Your task to perform on an android device: Search for the most popular coffee table on Crate & Barrel Image 0: 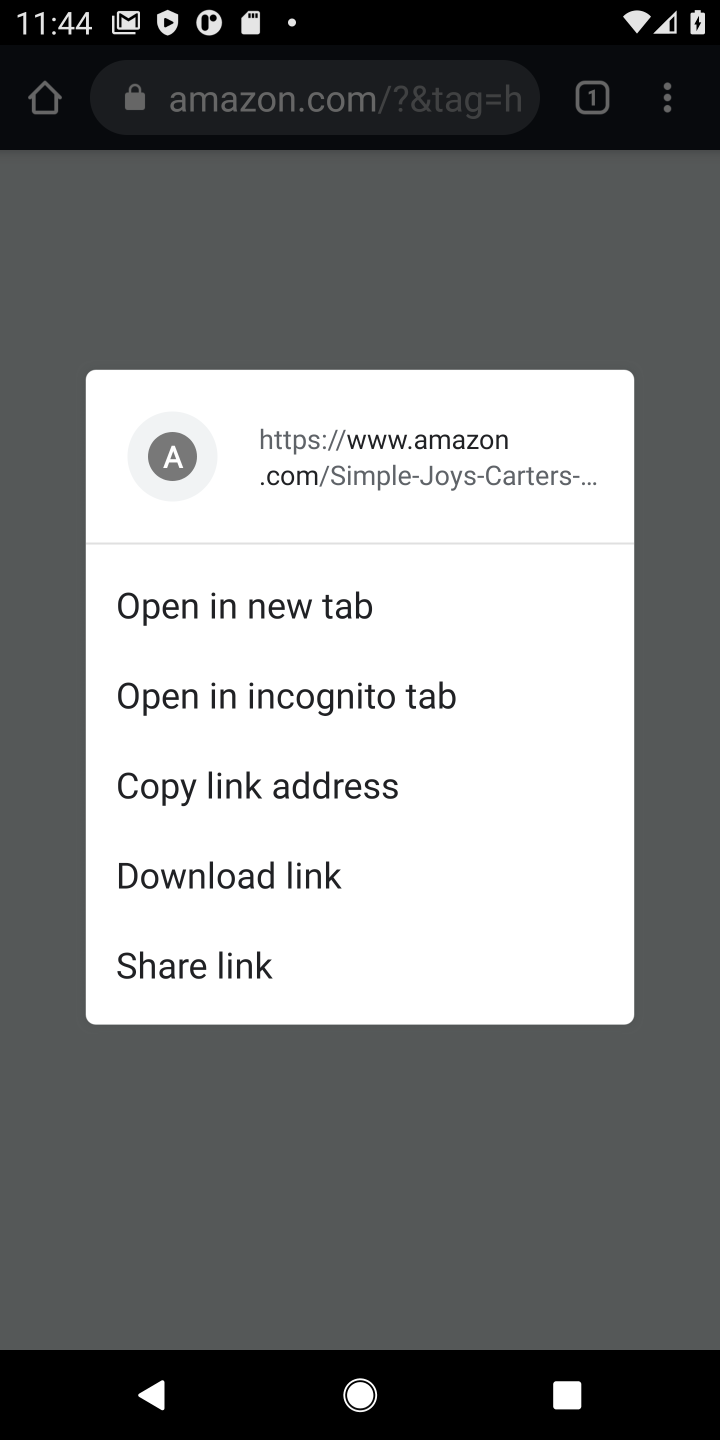
Step 0: press home button
Your task to perform on an android device: Search for the most popular coffee table on Crate & Barrel Image 1: 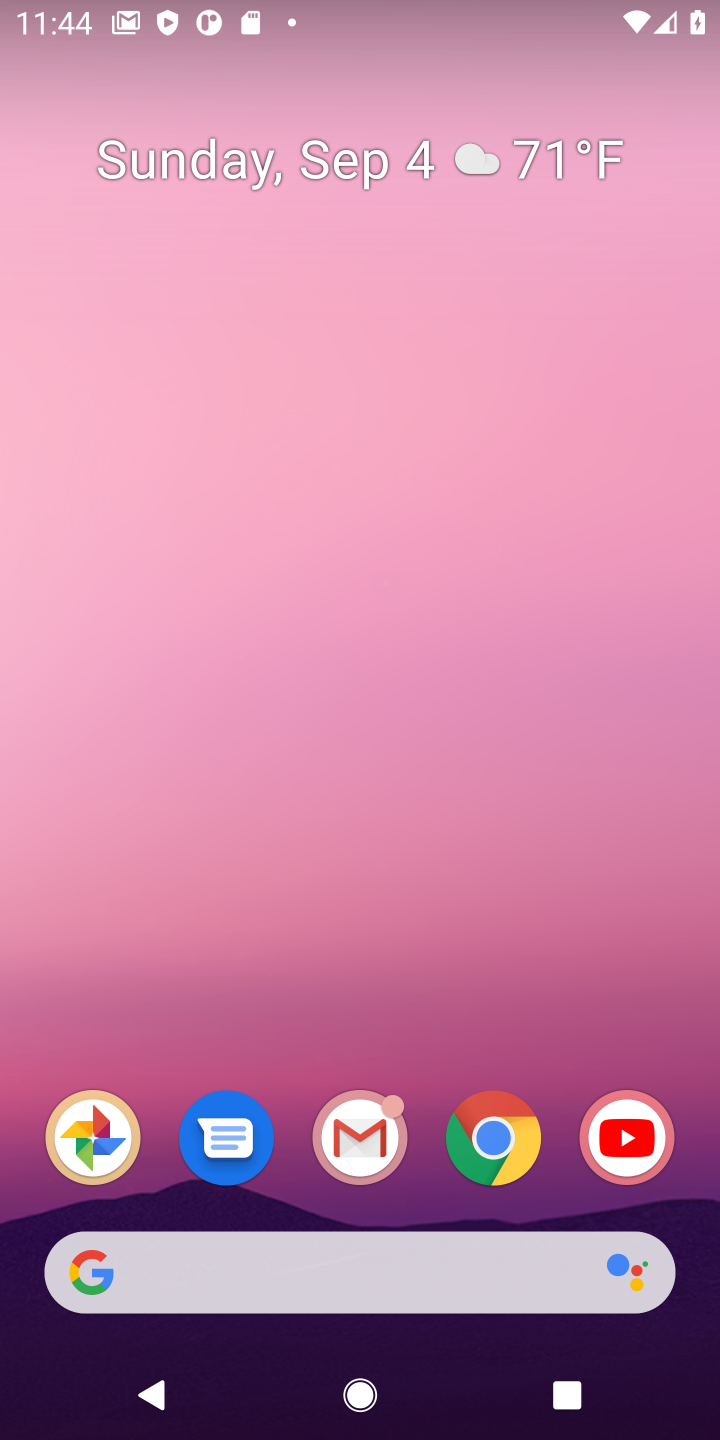
Step 1: click (469, 1174)
Your task to perform on an android device: Search for the most popular coffee table on Crate & Barrel Image 2: 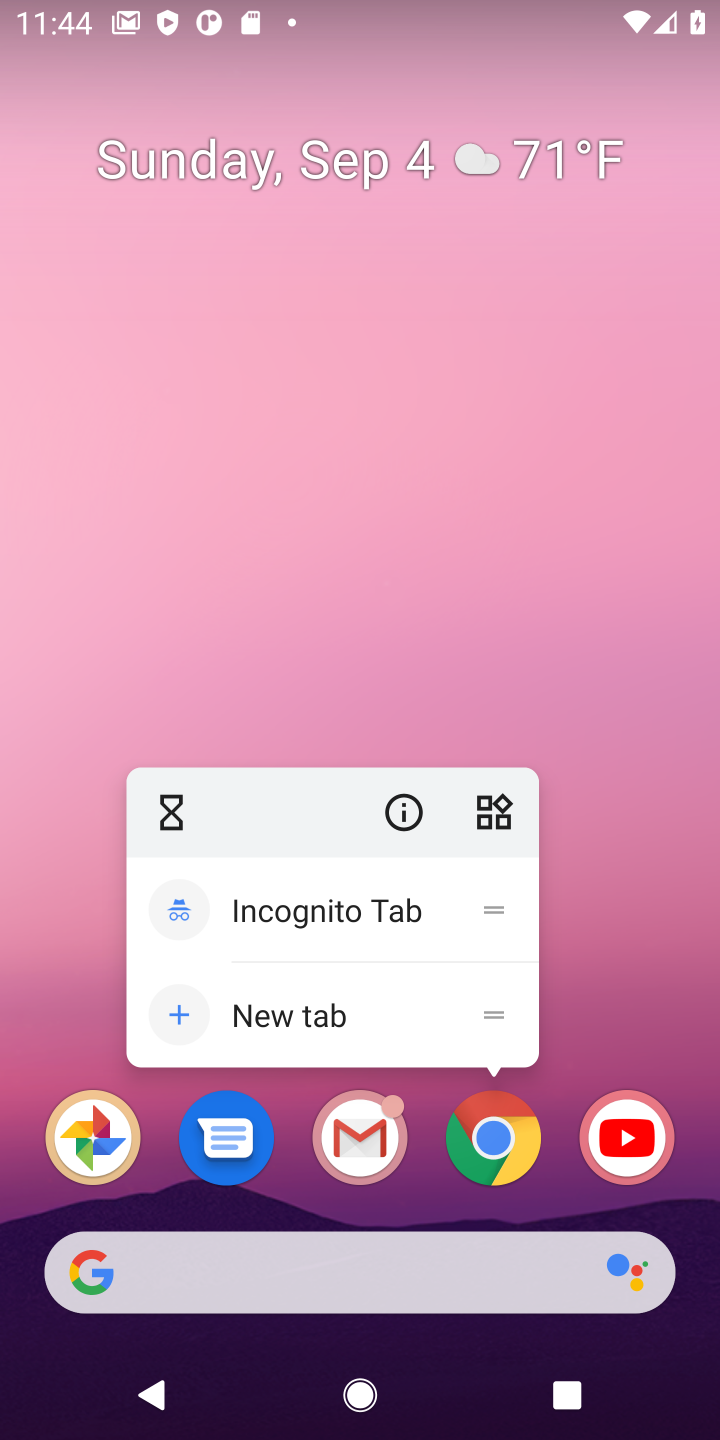
Step 2: click (490, 1165)
Your task to perform on an android device: Search for the most popular coffee table on Crate & Barrel Image 3: 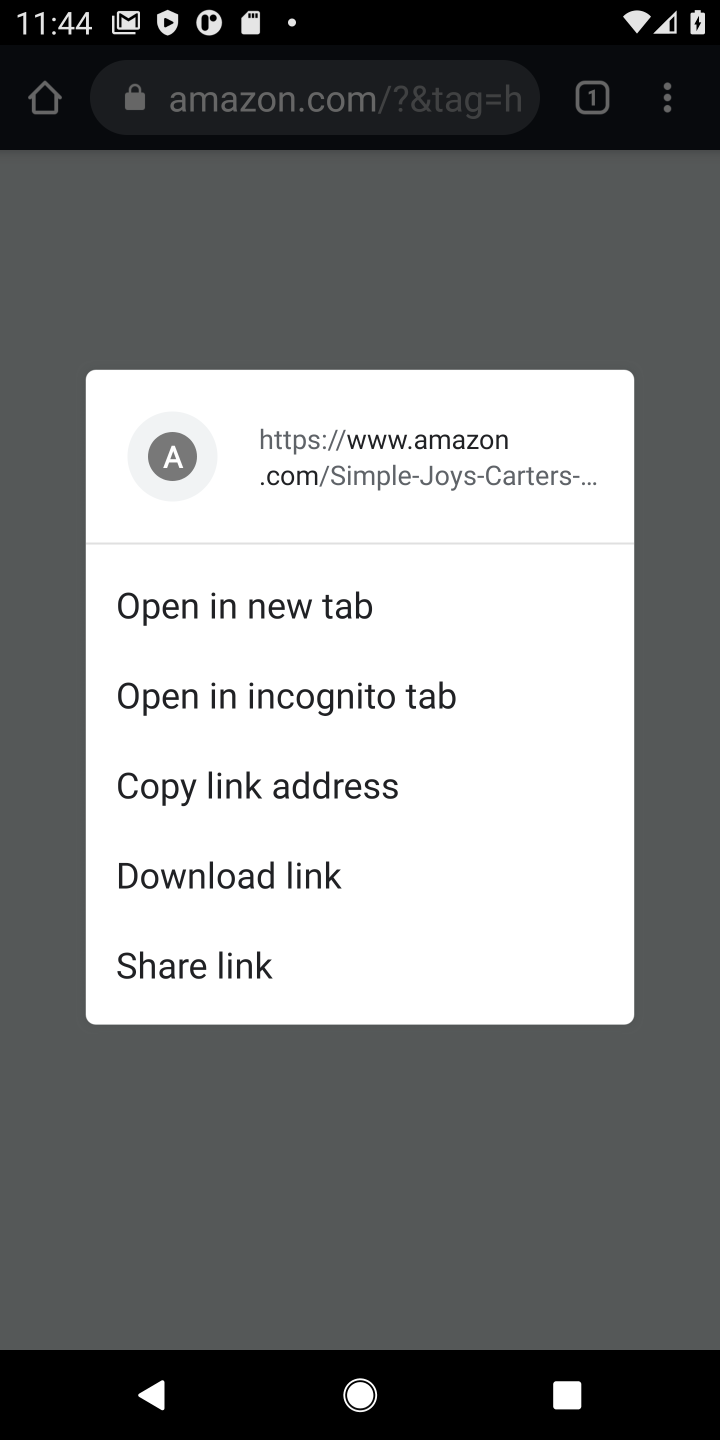
Step 3: press back button
Your task to perform on an android device: Search for the most popular coffee table on Crate & Barrel Image 4: 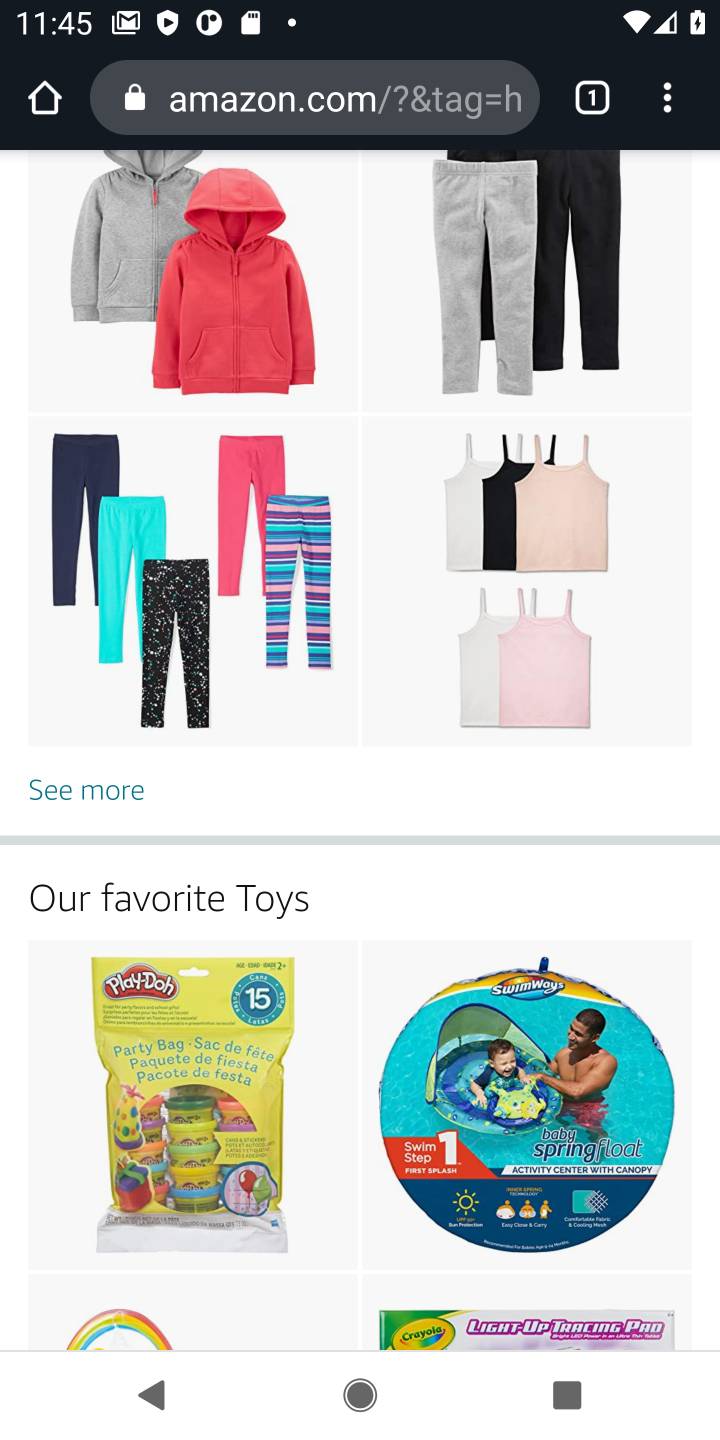
Step 4: click (336, 103)
Your task to perform on an android device: Search for the most popular coffee table on Crate & Barrel Image 5: 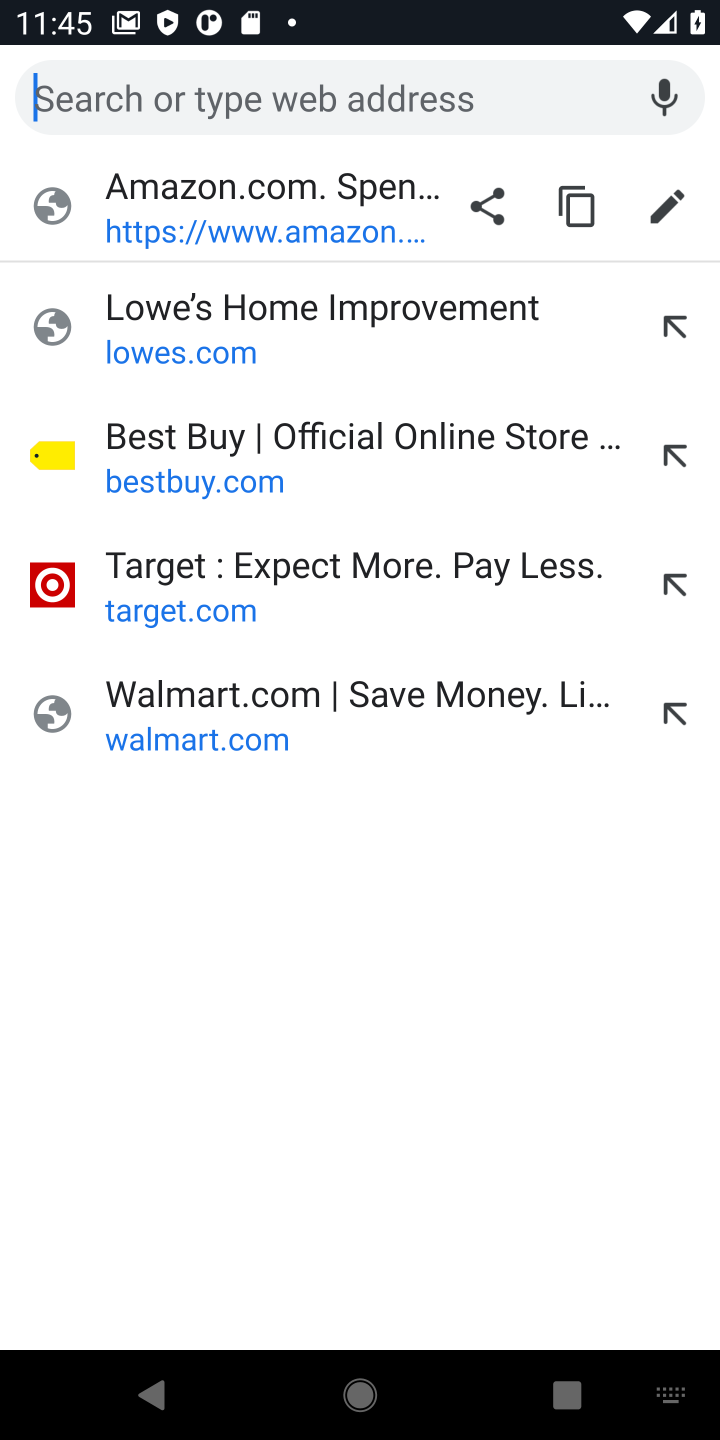
Step 5: type "crate and barrel"
Your task to perform on an android device: Search for the most popular coffee table on Crate & Barrel Image 6: 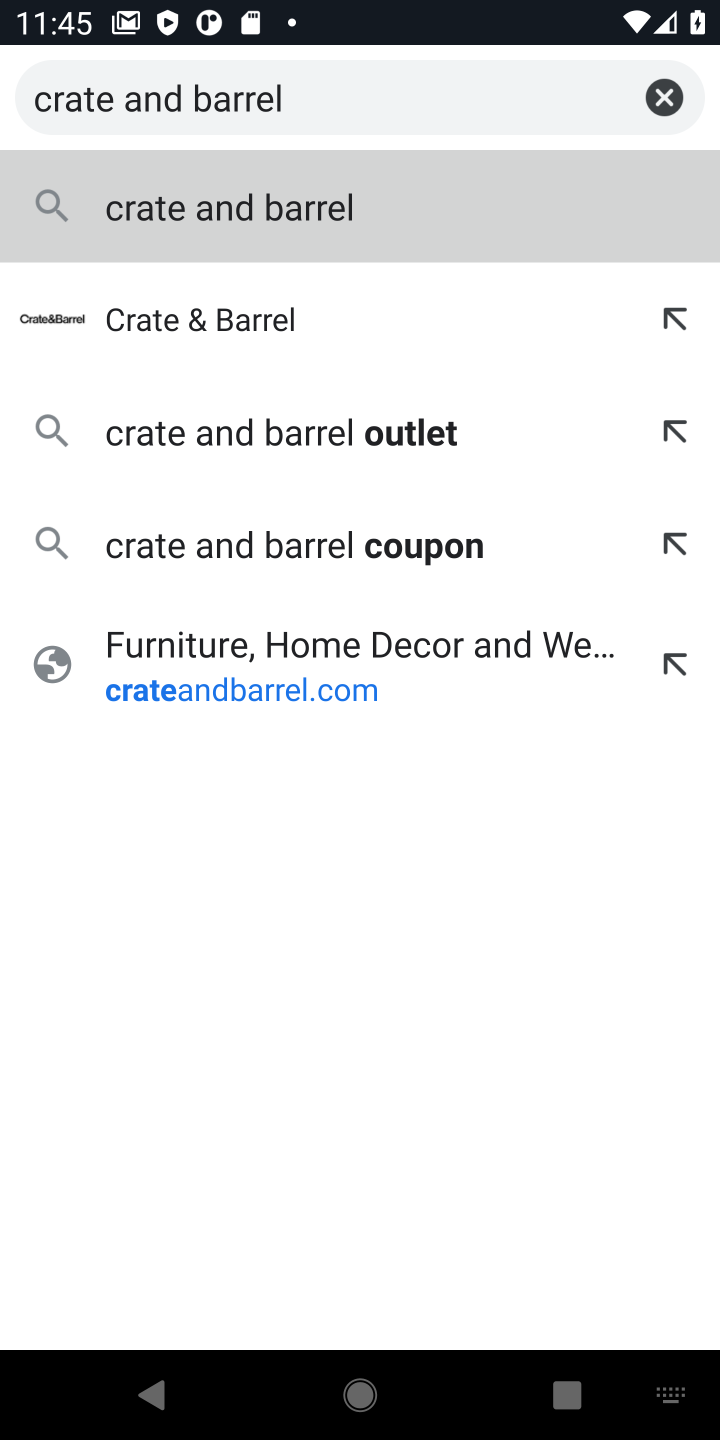
Step 6: click (348, 661)
Your task to perform on an android device: Search for the most popular coffee table on Crate & Barrel Image 7: 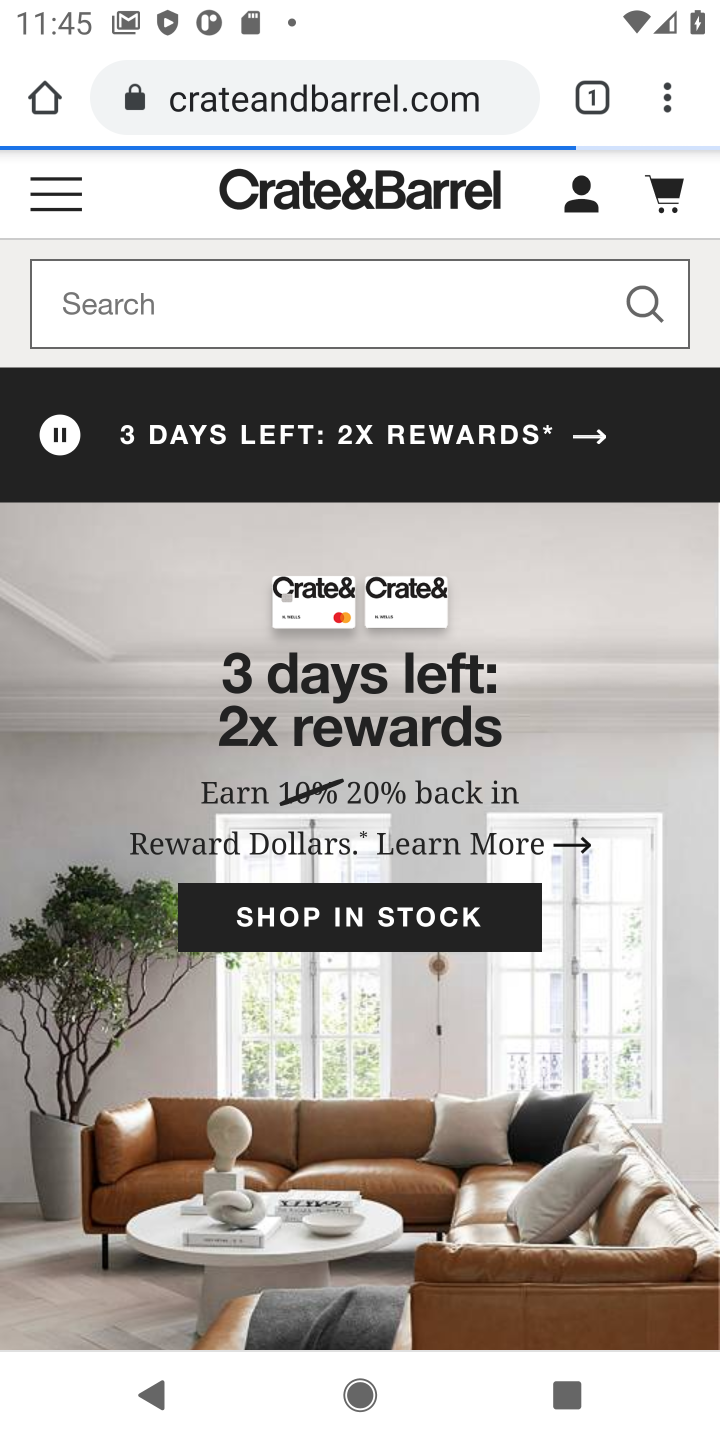
Step 7: click (399, 328)
Your task to perform on an android device: Search for the most popular coffee table on Crate & Barrel Image 8: 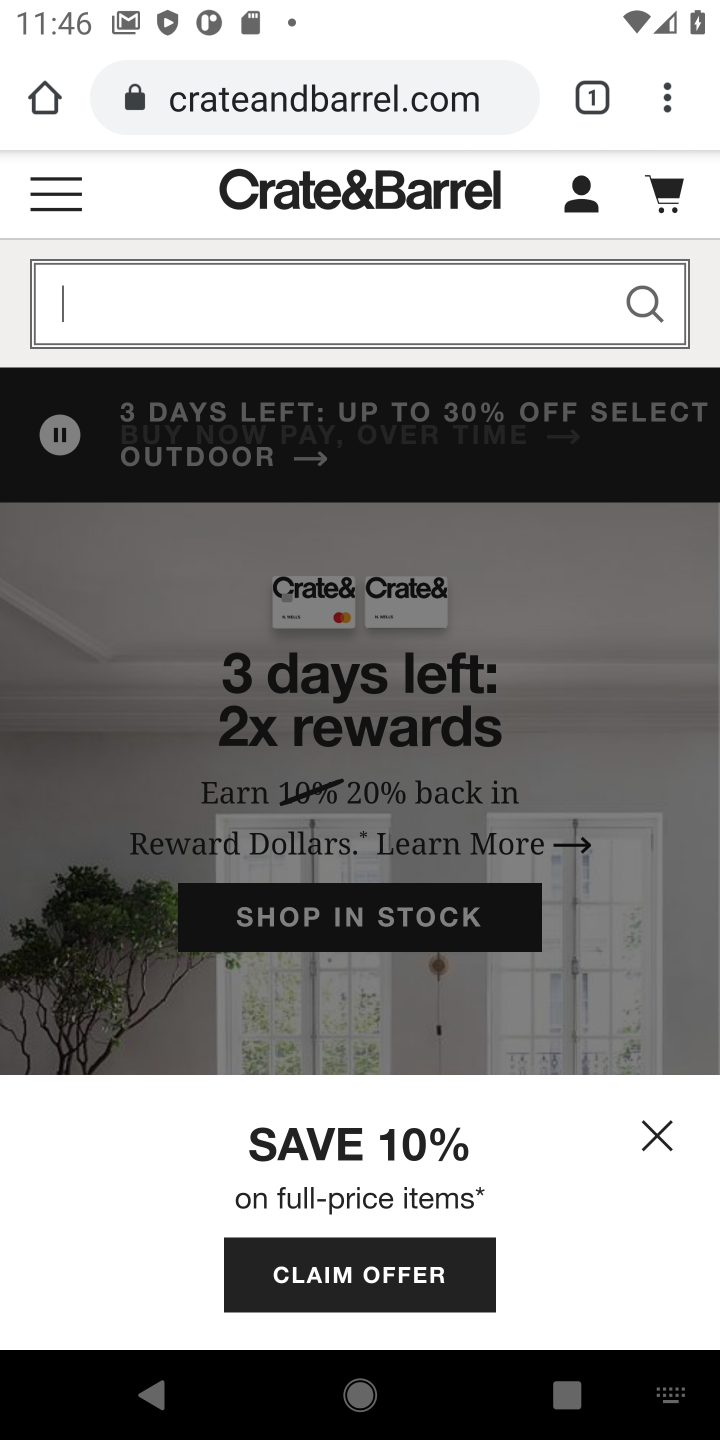
Step 8: click (426, 313)
Your task to perform on an android device: Search for the most popular coffee table on Crate & Barrel Image 9: 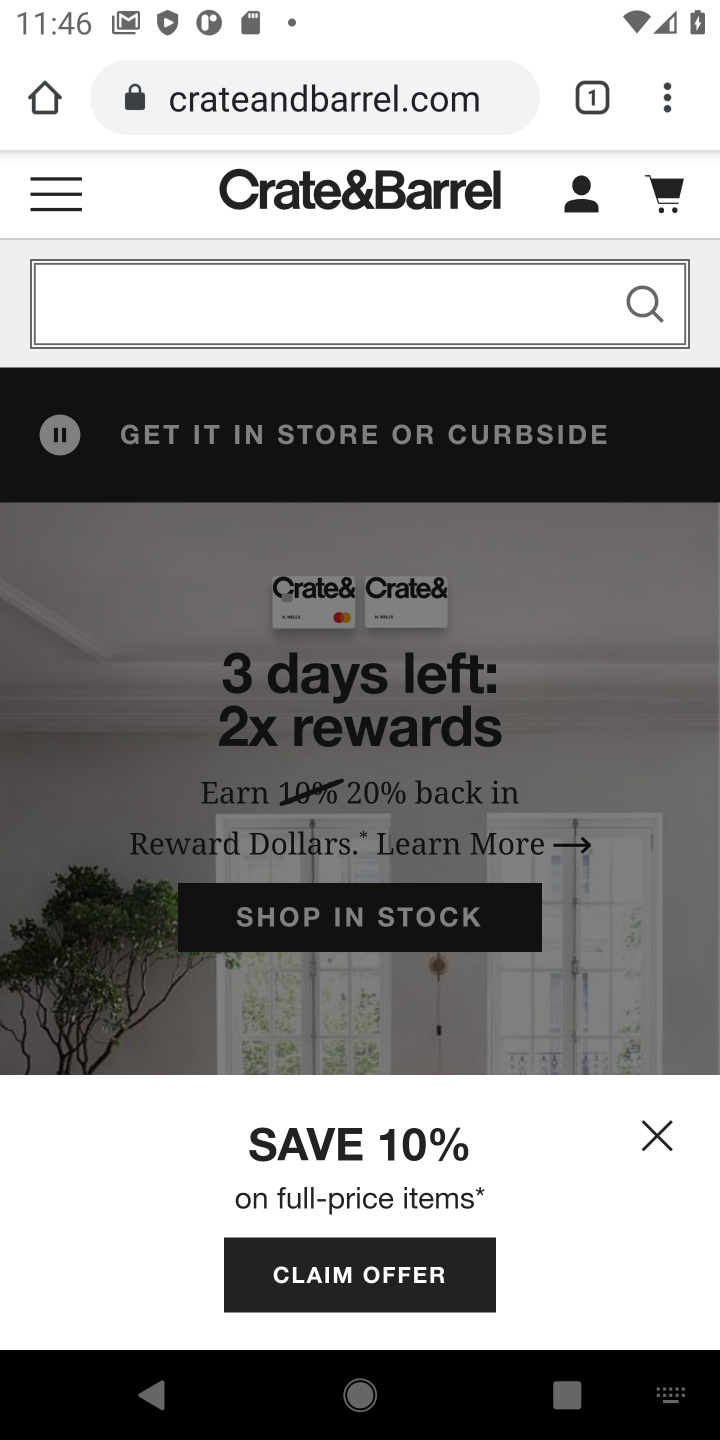
Step 9: type "coffee table"
Your task to perform on an android device: Search for the most popular coffee table on Crate & Barrel Image 10: 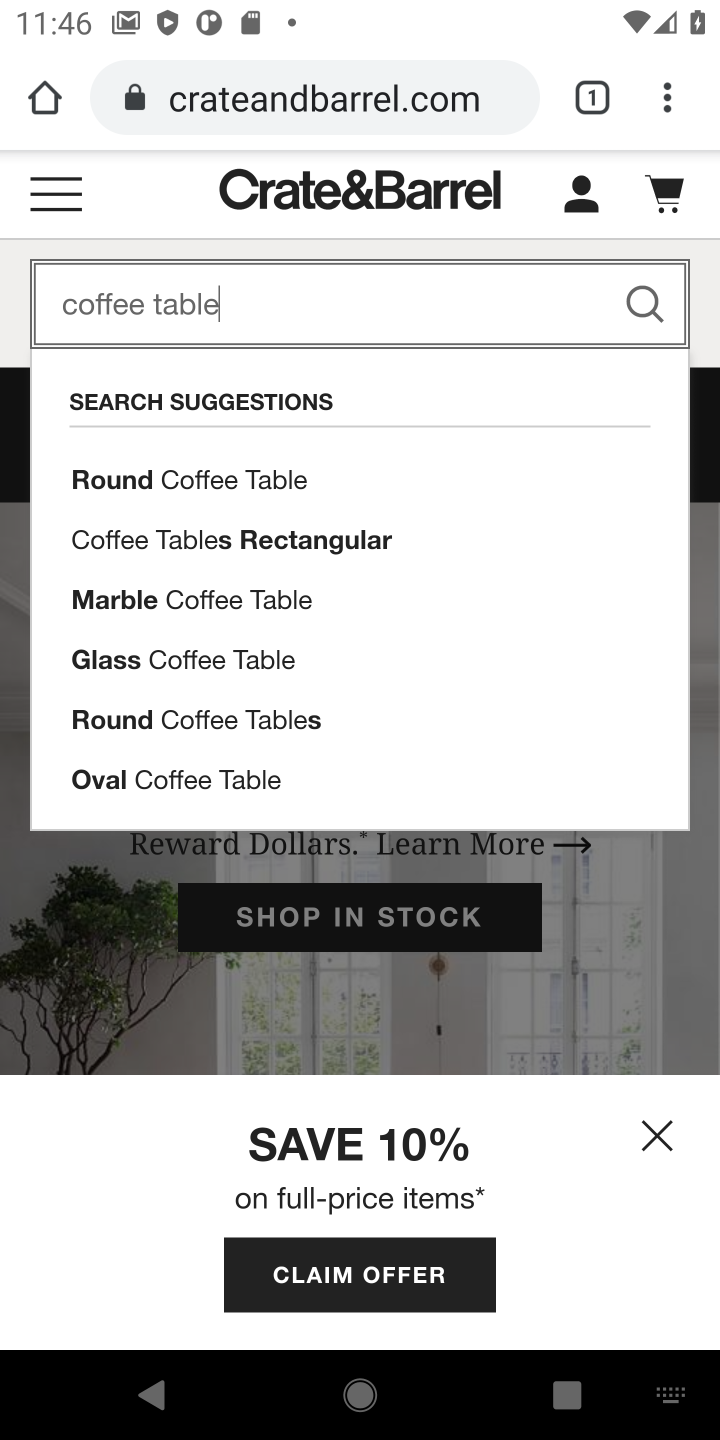
Step 10: press enter
Your task to perform on an android device: Search for the most popular coffee table on Crate & Barrel Image 11: 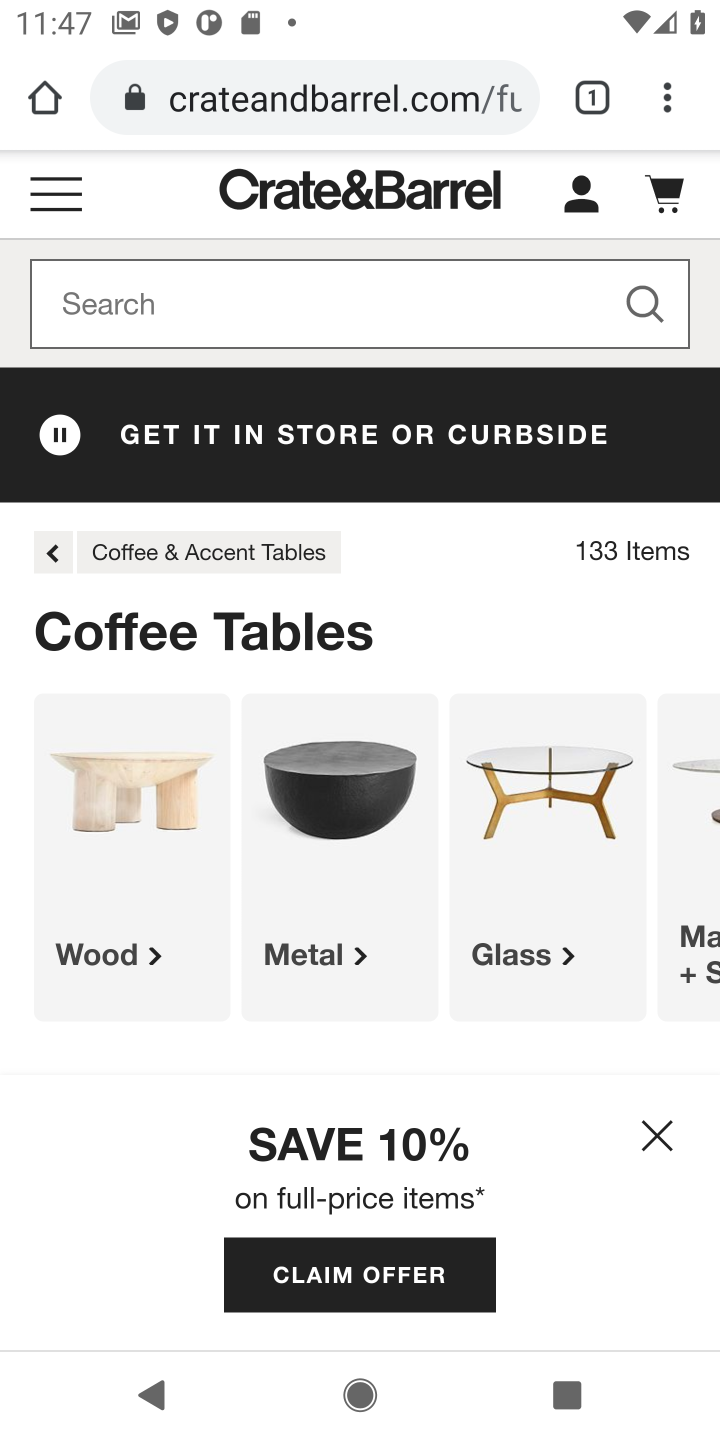
Step 11: click (404, 301)
Your task to perform on an android device: Search for the most popular coffee table on Crate & Barrel Image 12: 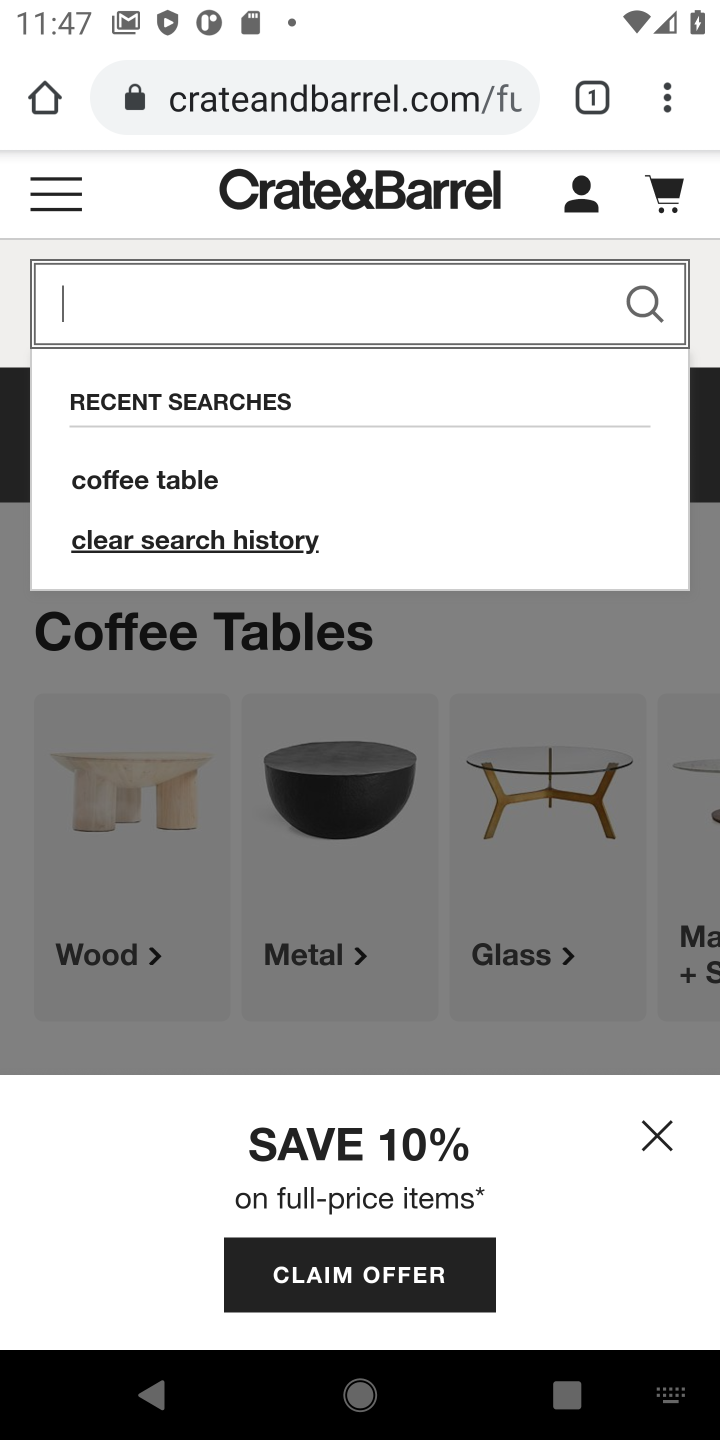
Step 12: type "most popular coffee table"
Your task to perform on an android device: Search for the most popular coffee table on Crate & Barrel Image 13: 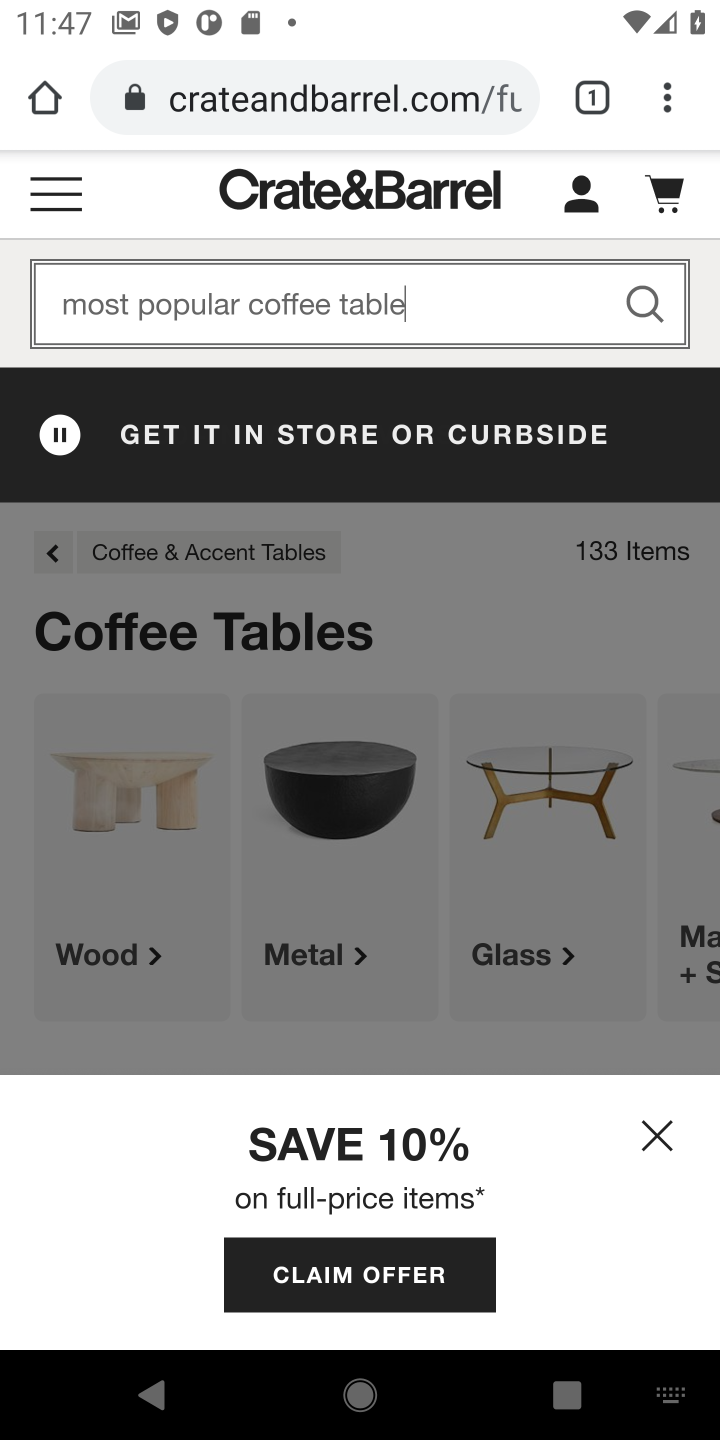
Step 13: press enter
Your task to perform on an android device: Search for the most popular coffee table on Crate & Barrel Image 14: 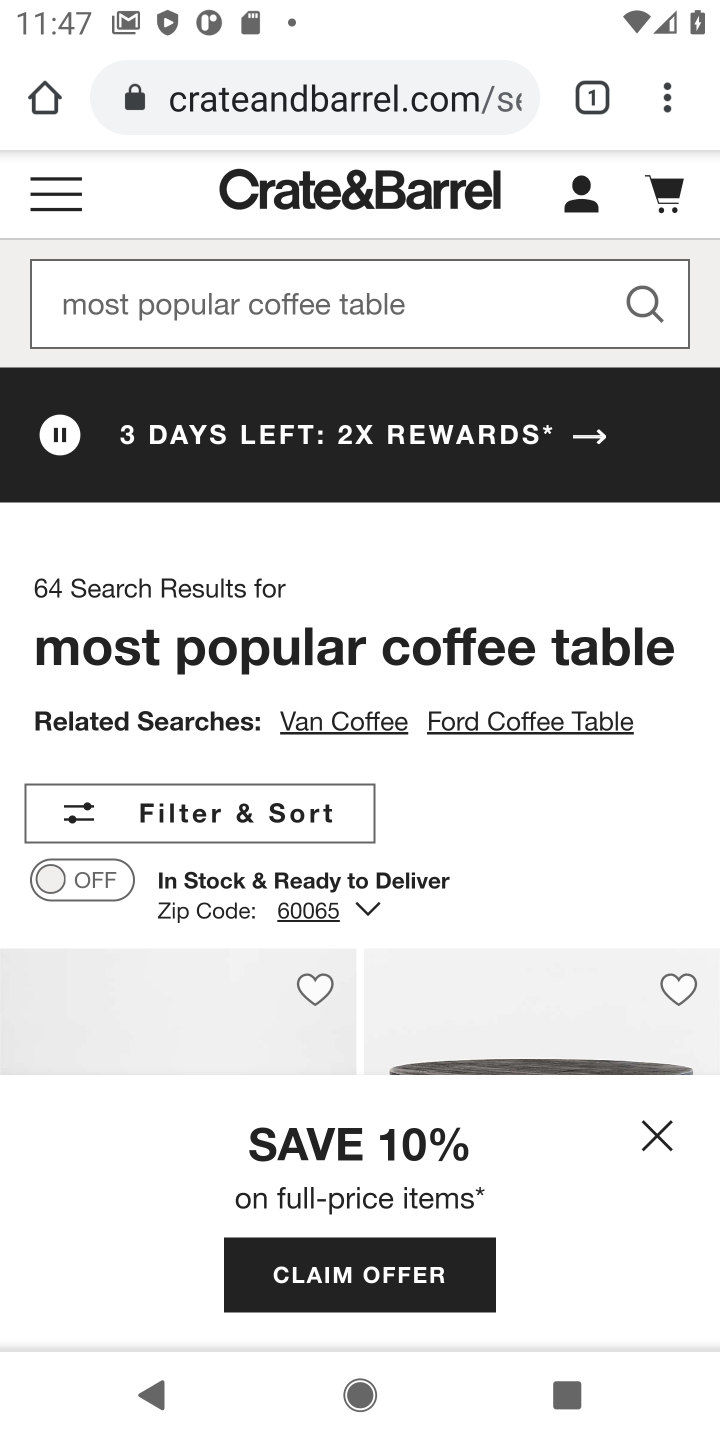
Step 14: task complete